Your task to perform on an android device: Open Chrome and go to settings Image 0: 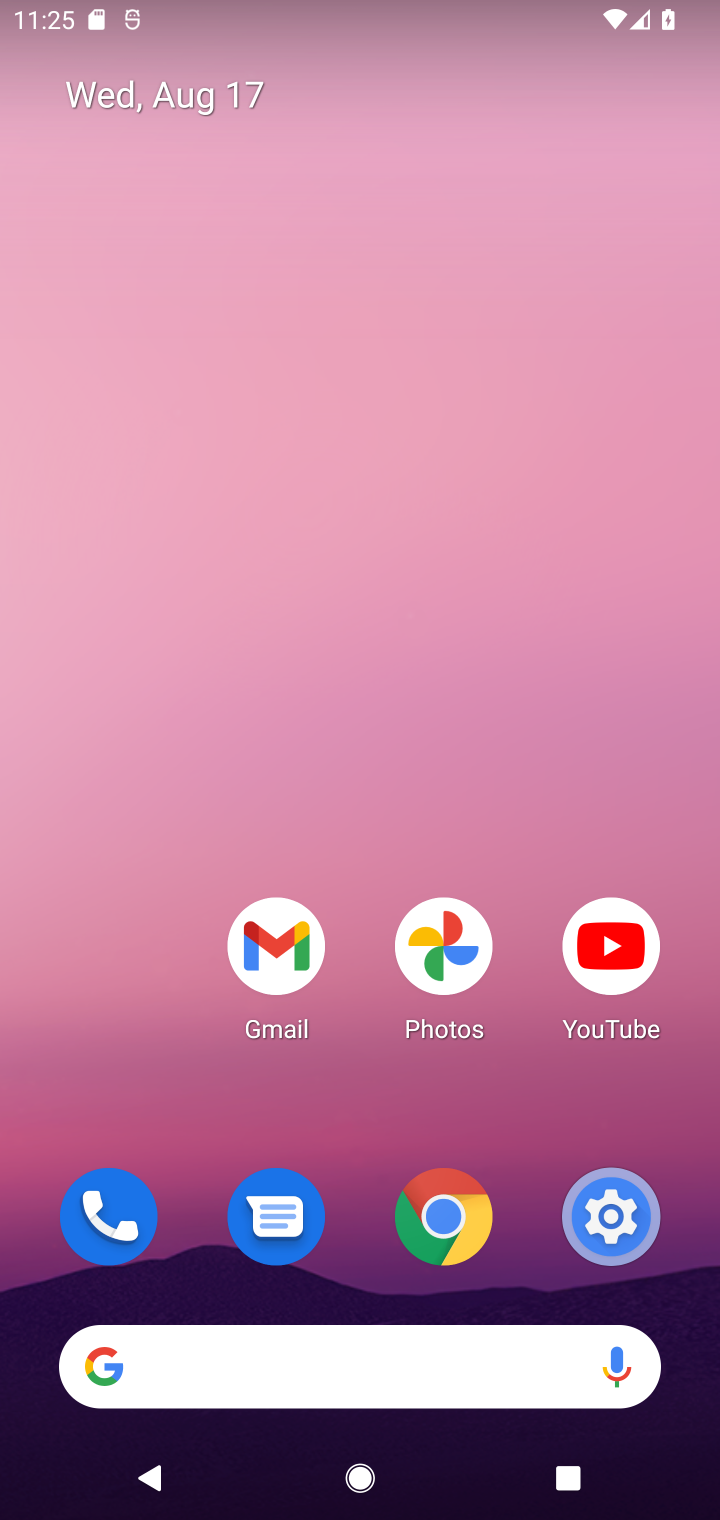
Step 0: drag from (457, 964) to (434, 52)
Your task to perform on an android device: Open Chrome and go to settings Image 1: 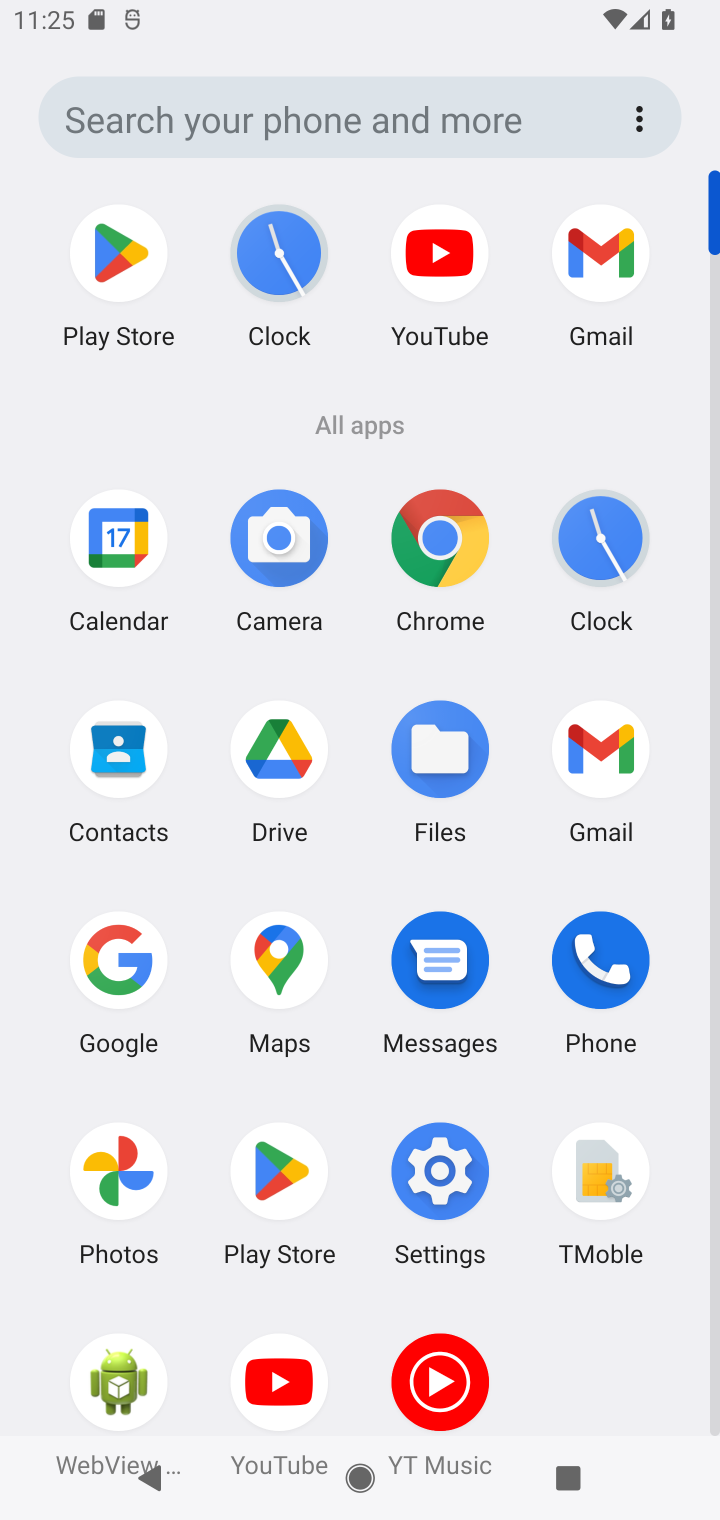
Step 1: click (464, 601)
Your task to perform on an android device: Open Chrome and go to settings Image 2: 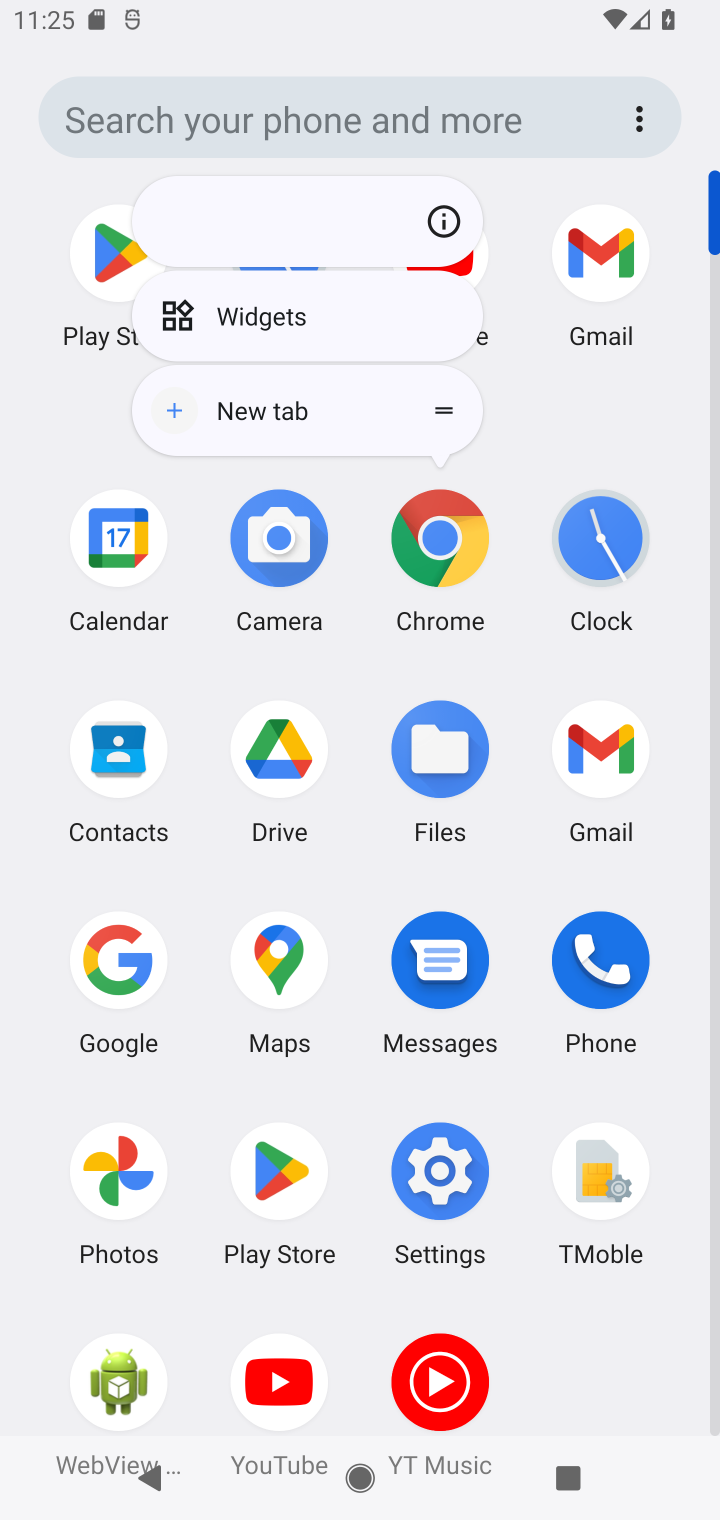
Step 2: click (455, 566)
Your task to perform on an android device: Open Chrome and go to settings Image 3: 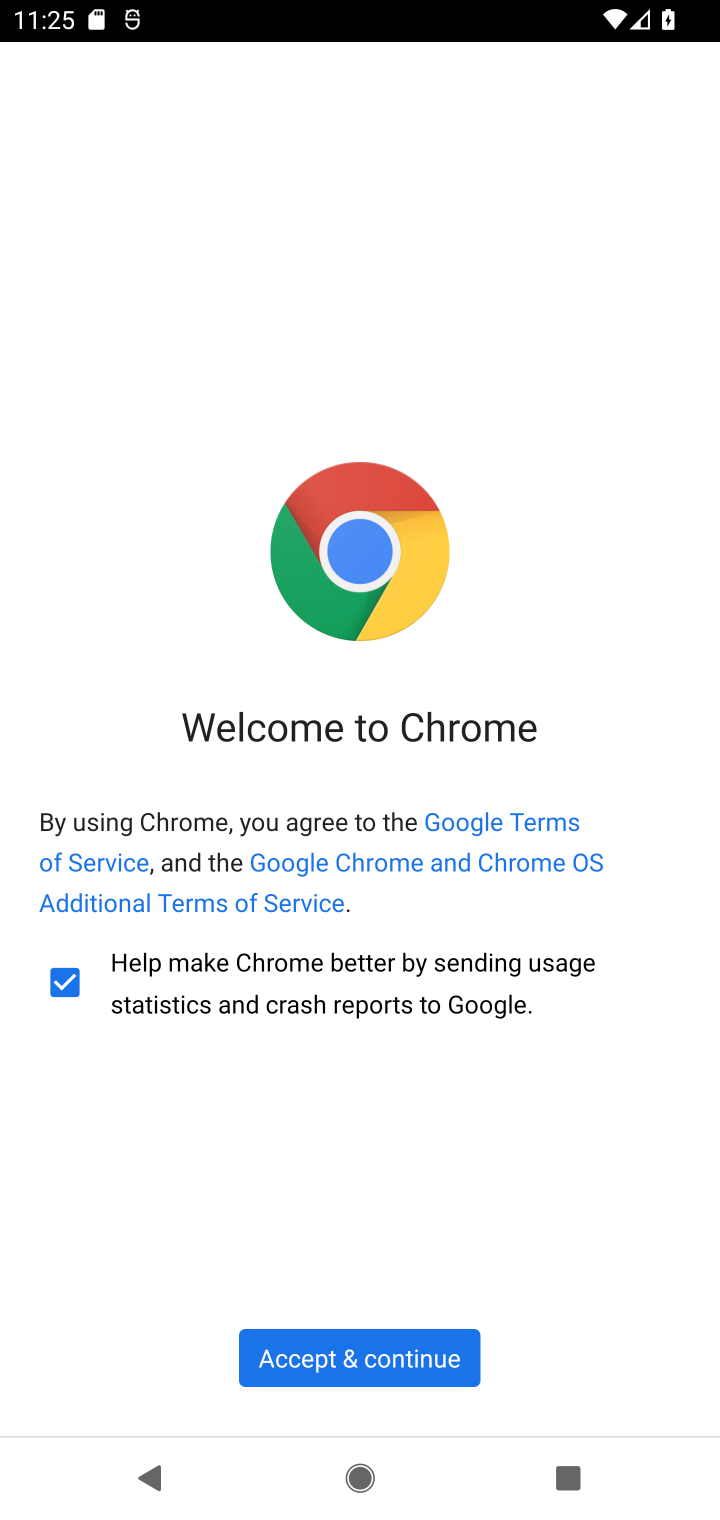
Step 3: click (315, 1372)
Your task to perform on an android device: Open Chrome and go to settings Image 4: 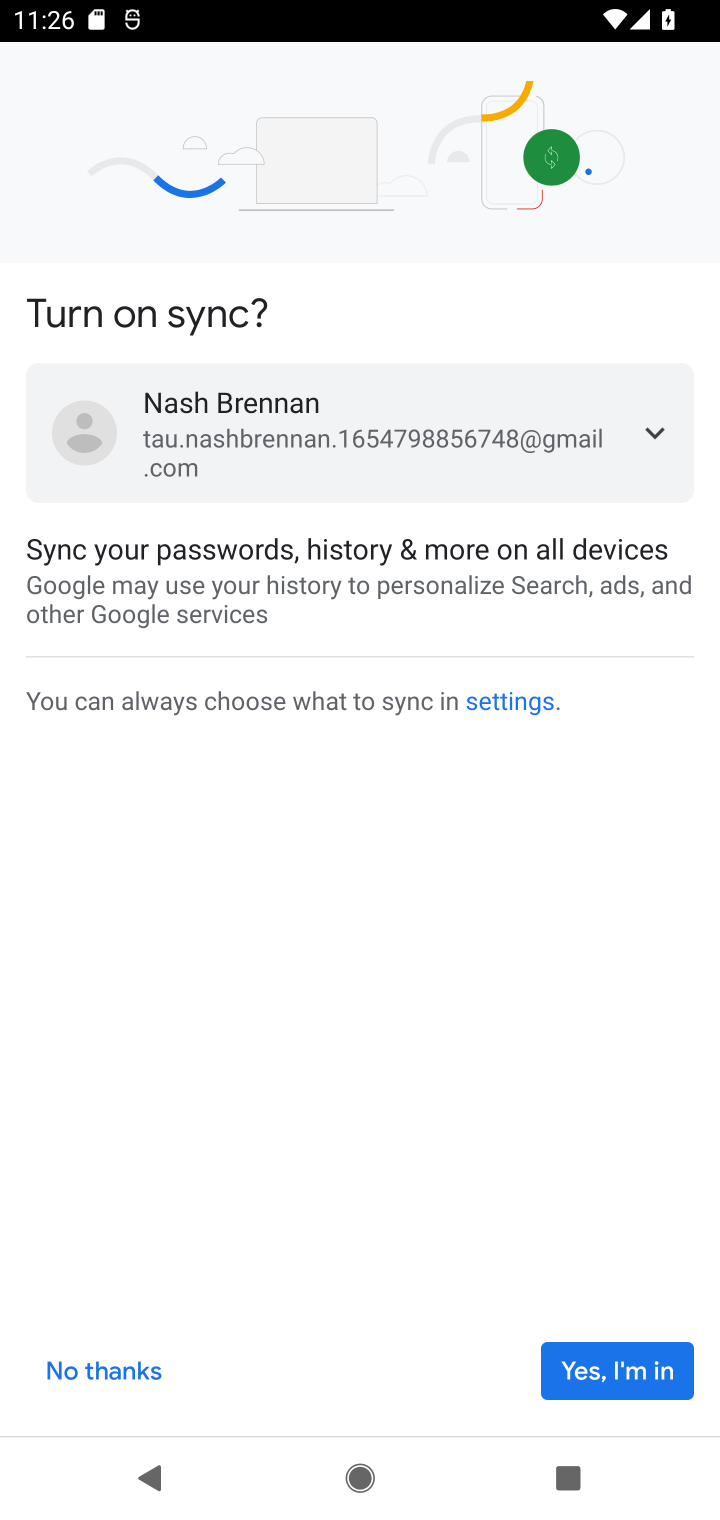
Step 4: click (648, 1350)
Your task to perform on an android device: Open Chrome and go to settings Image 5: 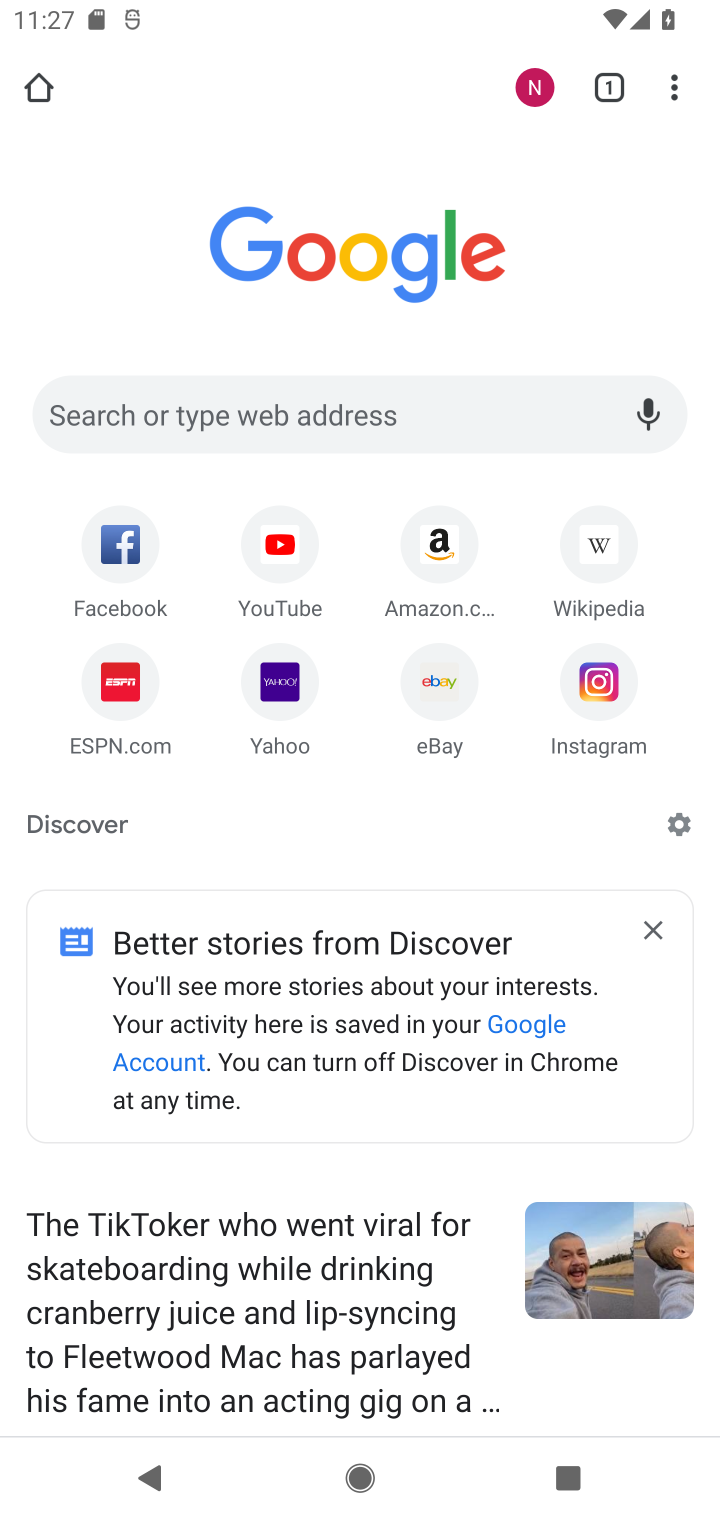
Step 5: click (679, 81)
Your task to perform on an android device: Open Chrome and go to settings Image 6: 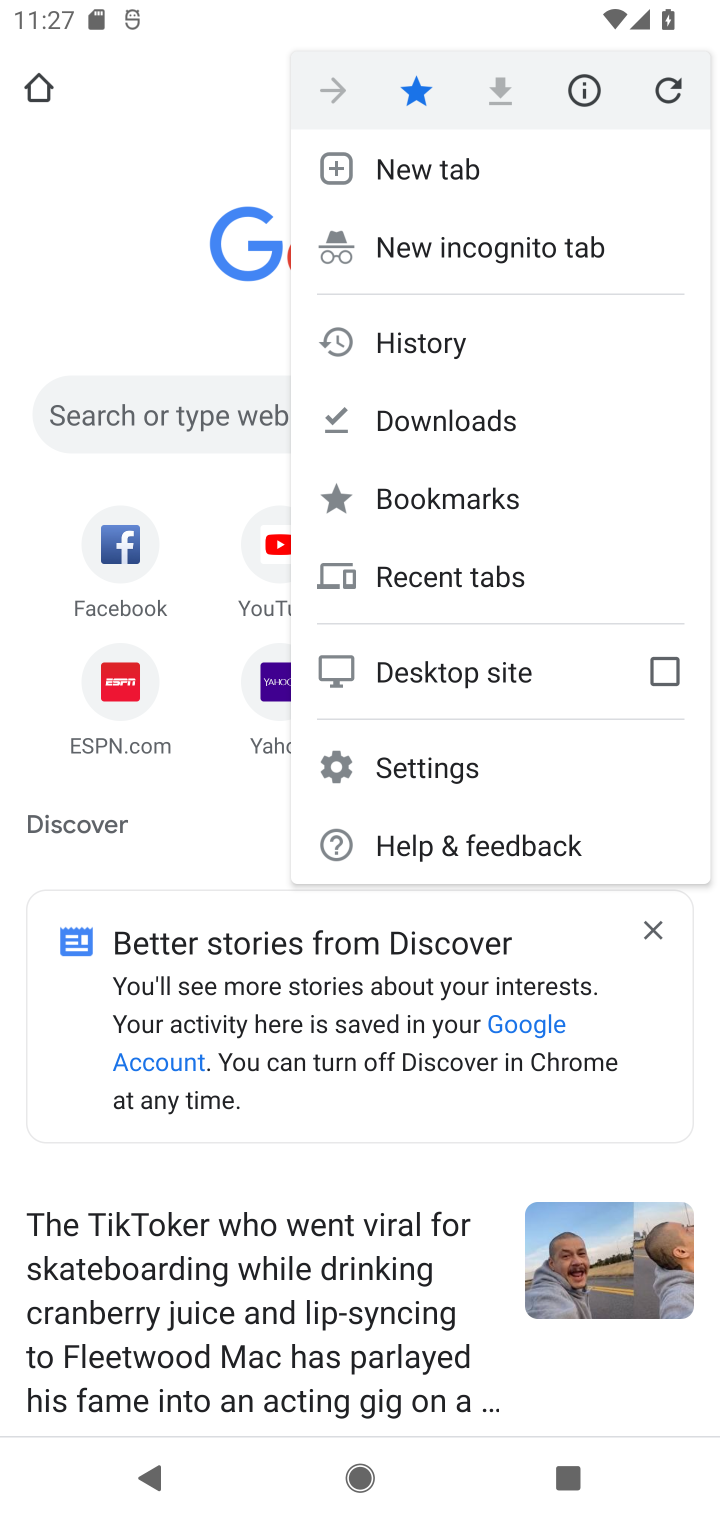
Step 6: click (418, 771)
Your task to perform on an android device: Open Chrome and go to settings Image 7: 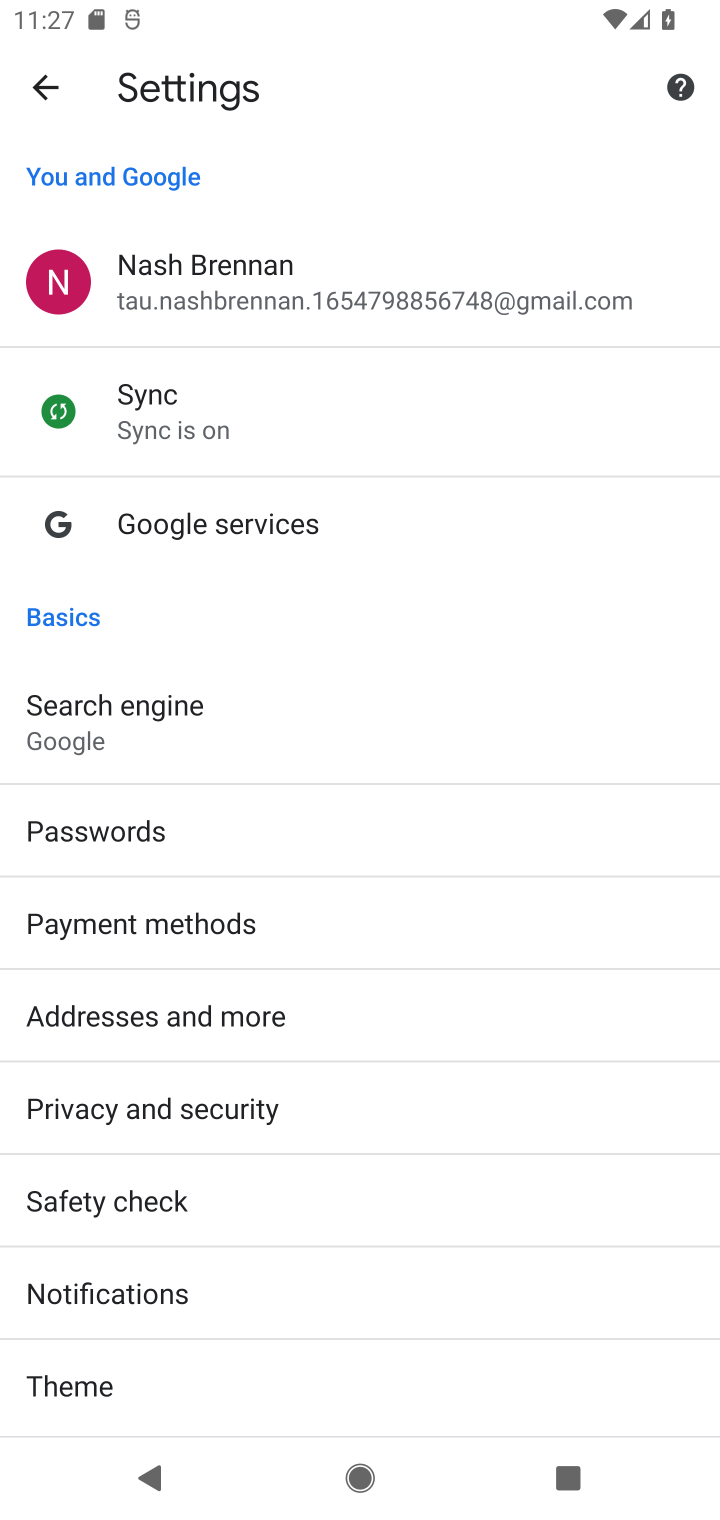
Step 7: task complete